Your task to perform on an android device: Open sound settings Image 0: 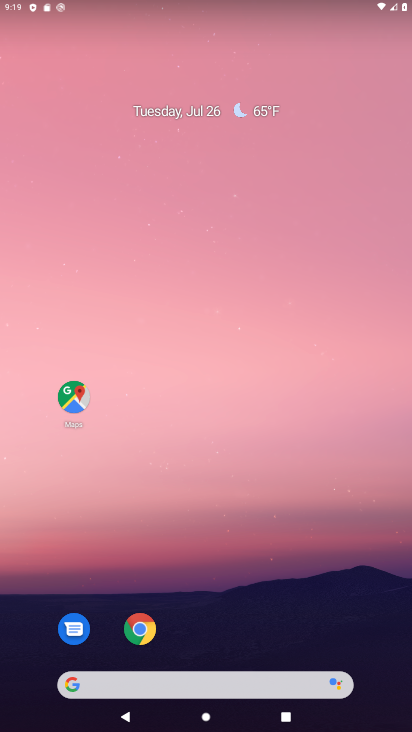
Step 0: drag from (267, 592) to (205, 0)
Your task to perform on an android device: Open sound settings Image 1: 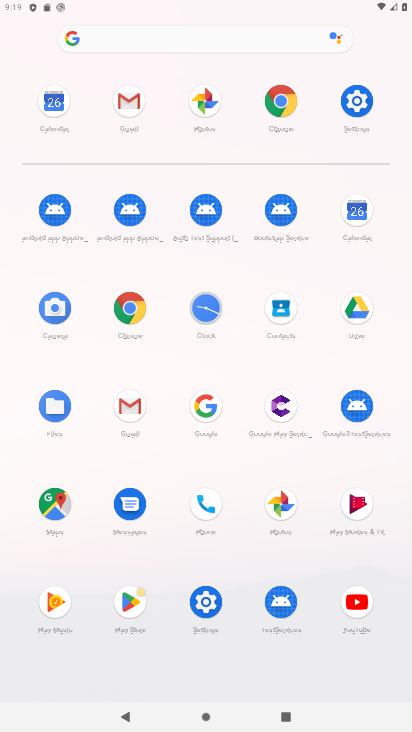
Step 1: click (369, 100)
Your task to perform on an android device: Open sound settings Image 2: 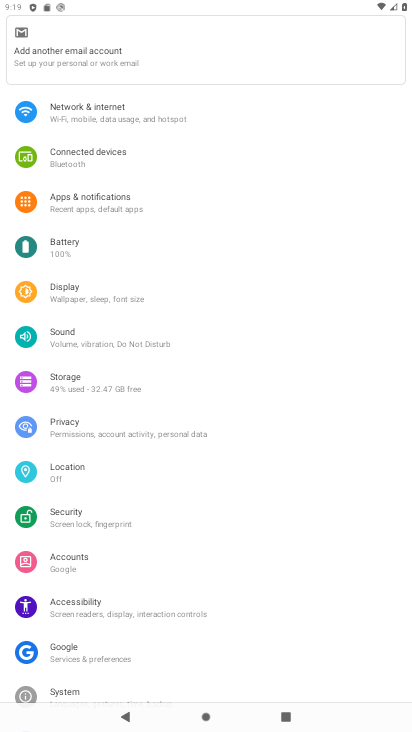
Step 2: click (86, 332)
Your task to perform on an android device: Open sound settings Image 3: 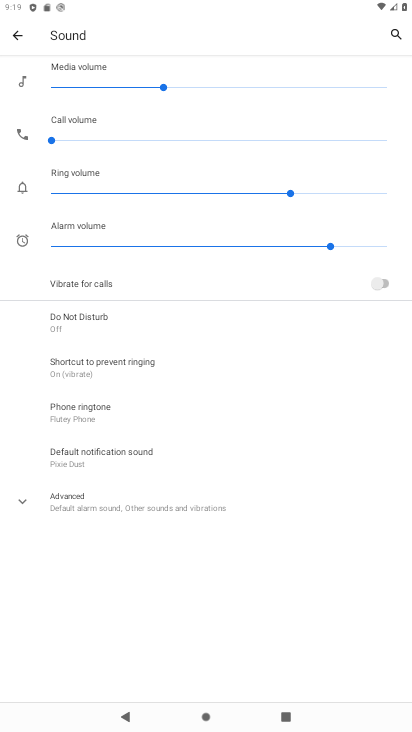
Step 3: task complete